Your task to perform on an android device: Open Maps and search for coffee Image 0: 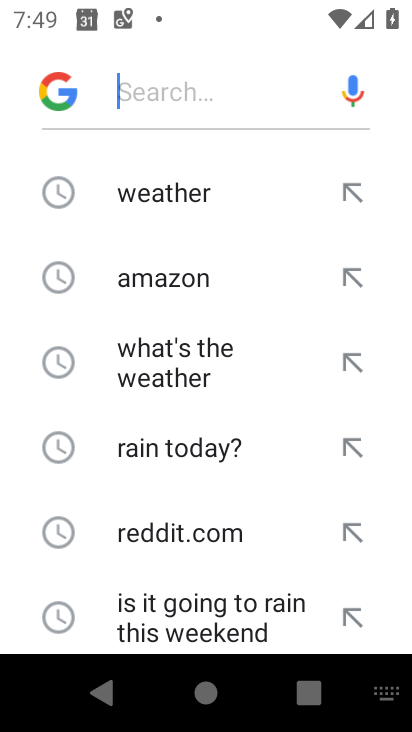
Step 0: press home button
Your task to perform on an android device: Open Maps and search for coffee Image 1: 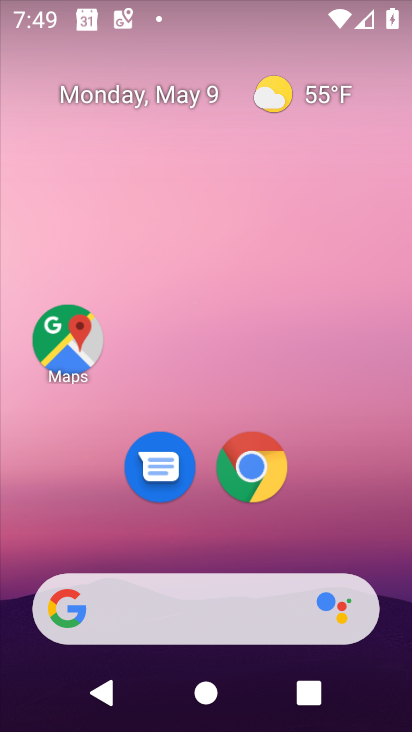
Step 1: click (70, 343)
Your task to perform on an android device: Open Maps and search for coffee Image 2: 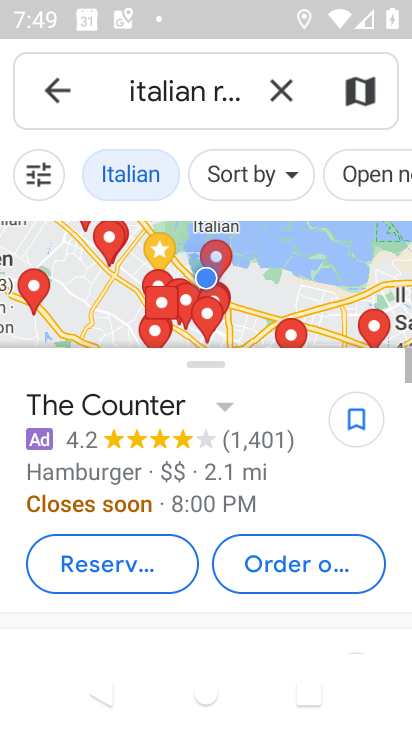
Step 2: click (273, 96)
Your task to perform on an android device: Open Maps and search for coffee Image 3: 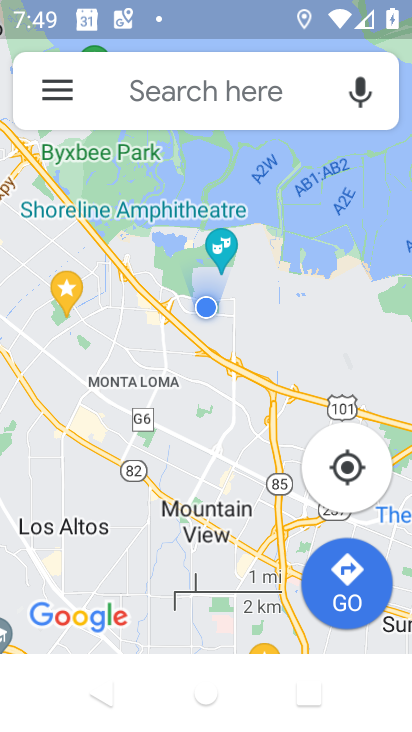
Step 3: click (142, 95)
Your task to perform on an android device: Open Maps and search for coffee Image 4: 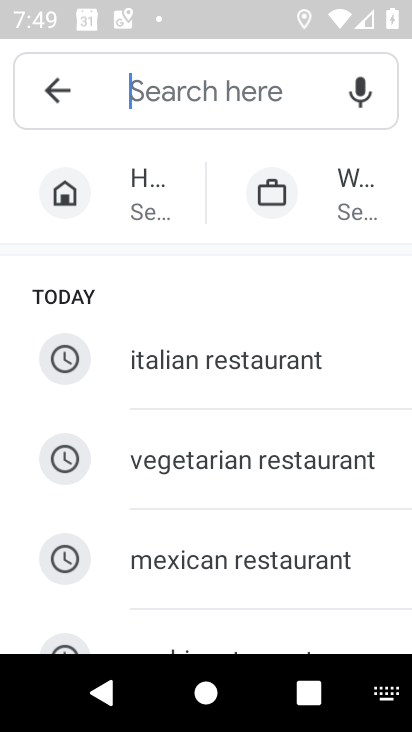
Step 4: type "coffee"
Your task to perform on an android device: Open Maps and search for coffee Image 5: 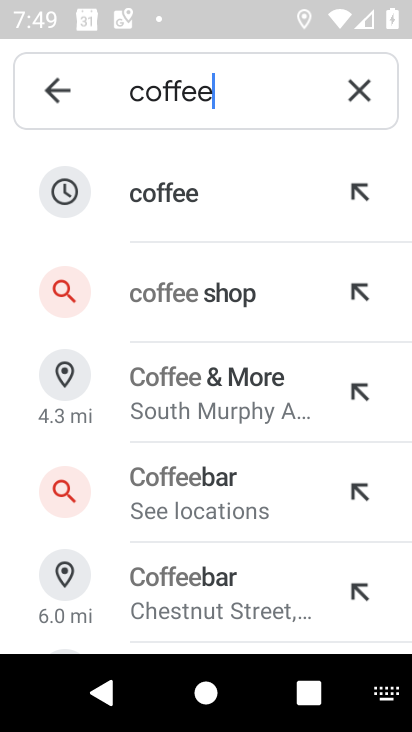
Step 5: click (187, 206)
Your task to perform on an android device: Open Maps and search for coffee Image 6: 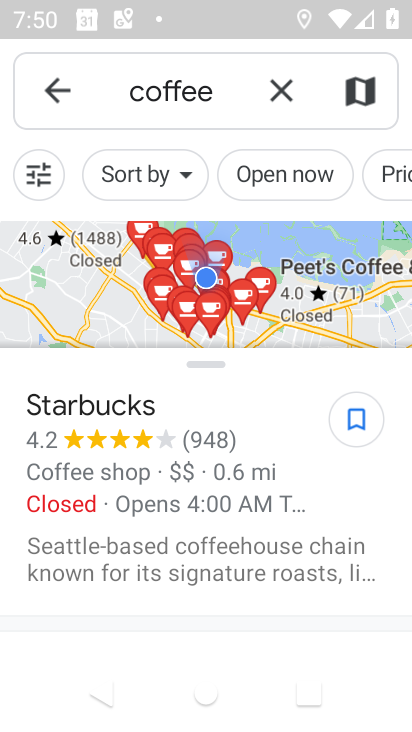
Step 6: task complete